Your task to perform on an android device: Open Google Chrome Image 0: 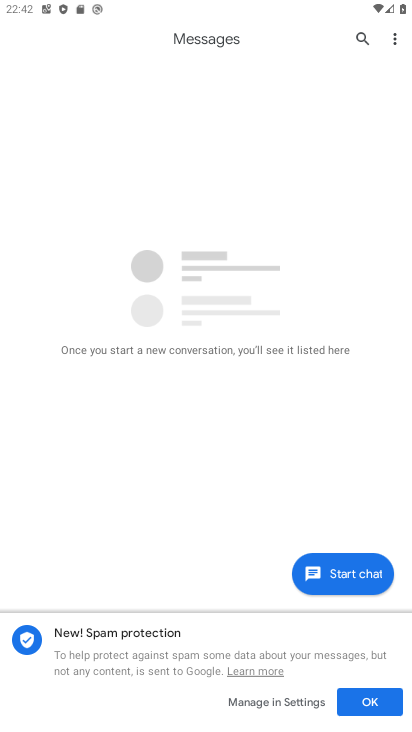
Step 0: press home button
Your task to perform on an android device: Open Google Chrome Image 1: 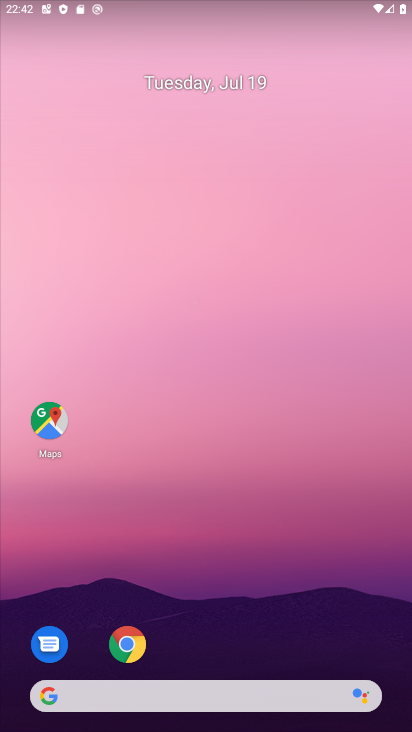
Step 1: drag from (210, 610) to (180, 274)
Your task to perform on an android device: Open Google Chrome Image 2: 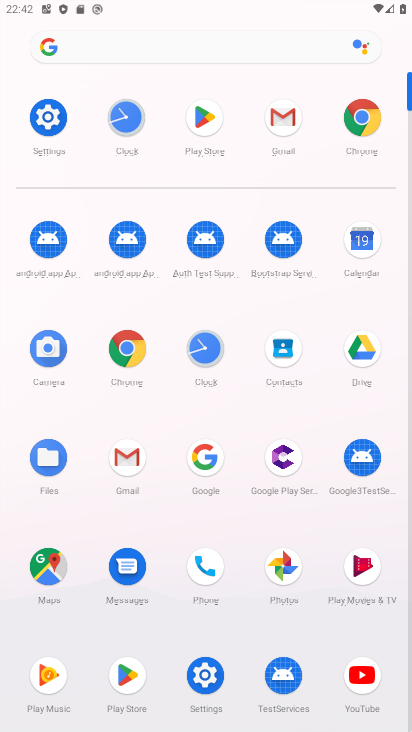
Step 2: click (120, 347)
Your task to perform on an android device: Open Google Chrome Image 3: 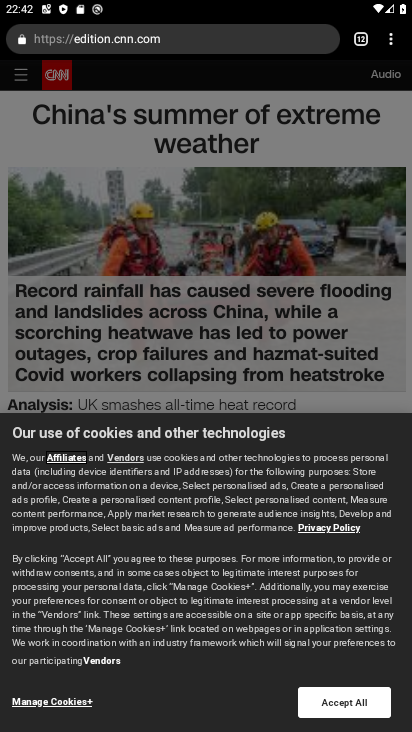
Step 3: task complete